Your task to perform on an android device: change the clock style Image 0: 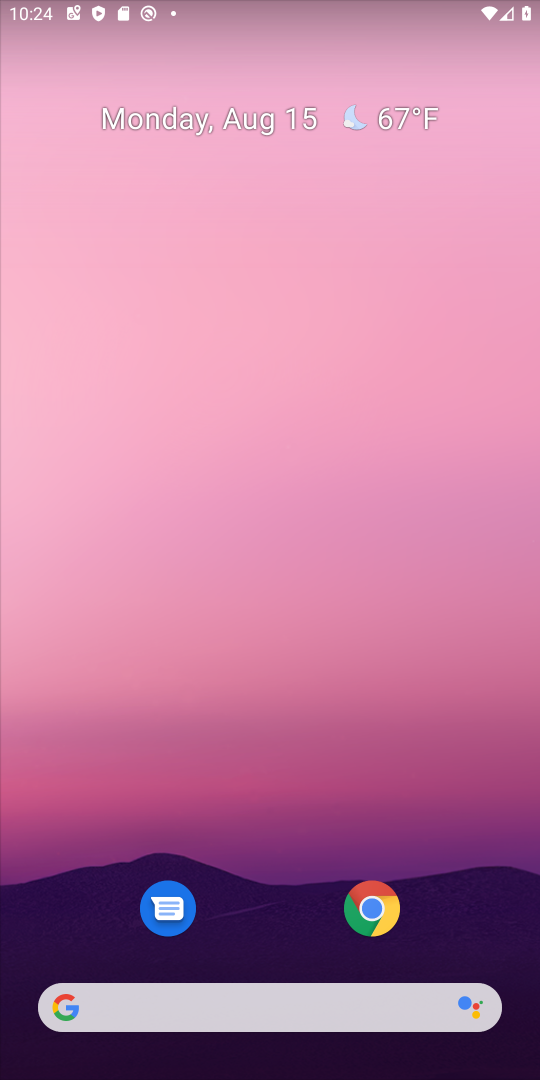
Step 0: drag from (249, 916) to (270, 426)
Your task to perform on an android device: change the clock style Image 1: 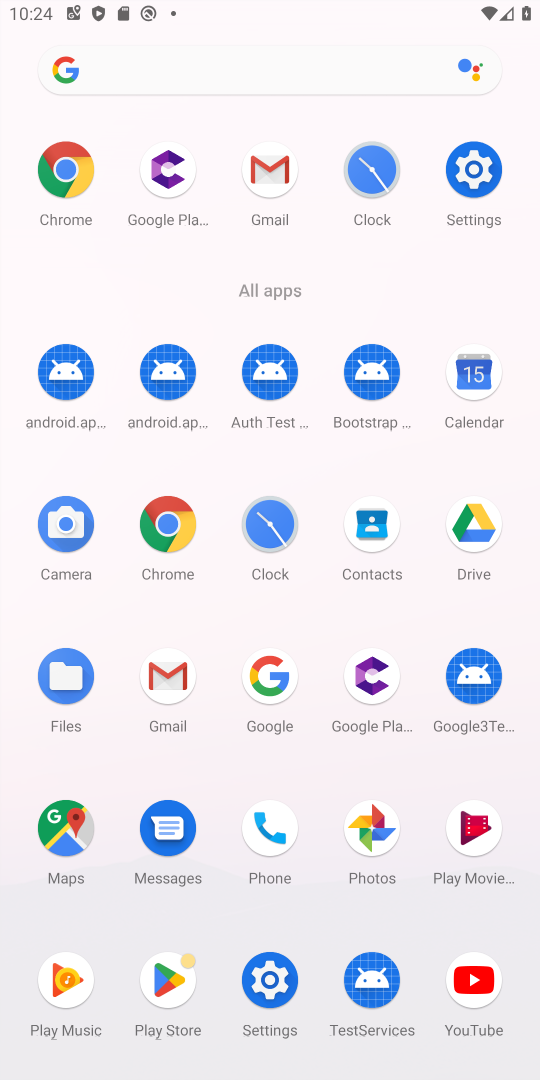
Step 1: click (372, 189)
Your task to perform on an android device: change the clock style Image 2: 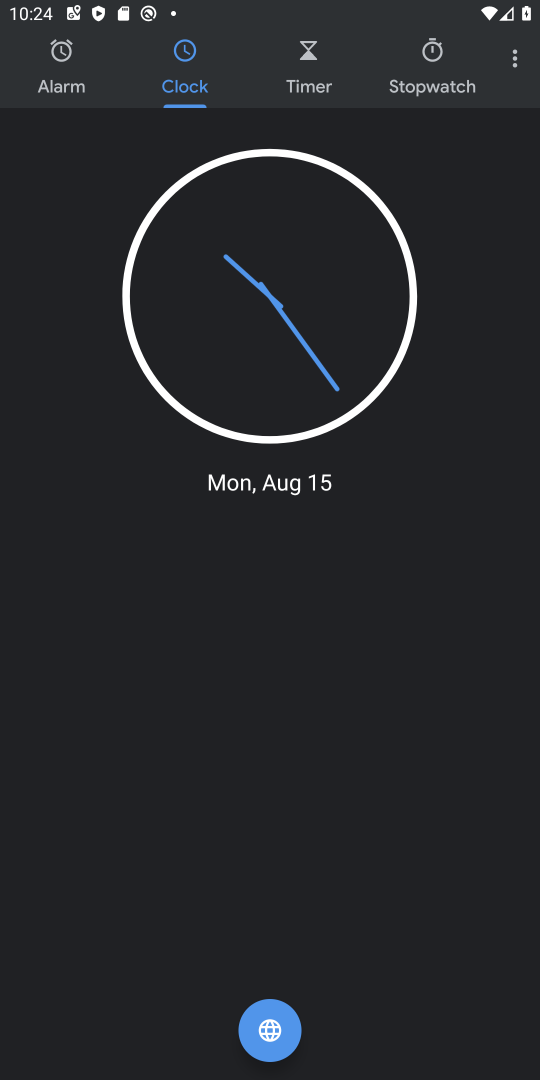
Step 2: click (529, 70)
Your task to perform on an android device: change the clock style Image 3: 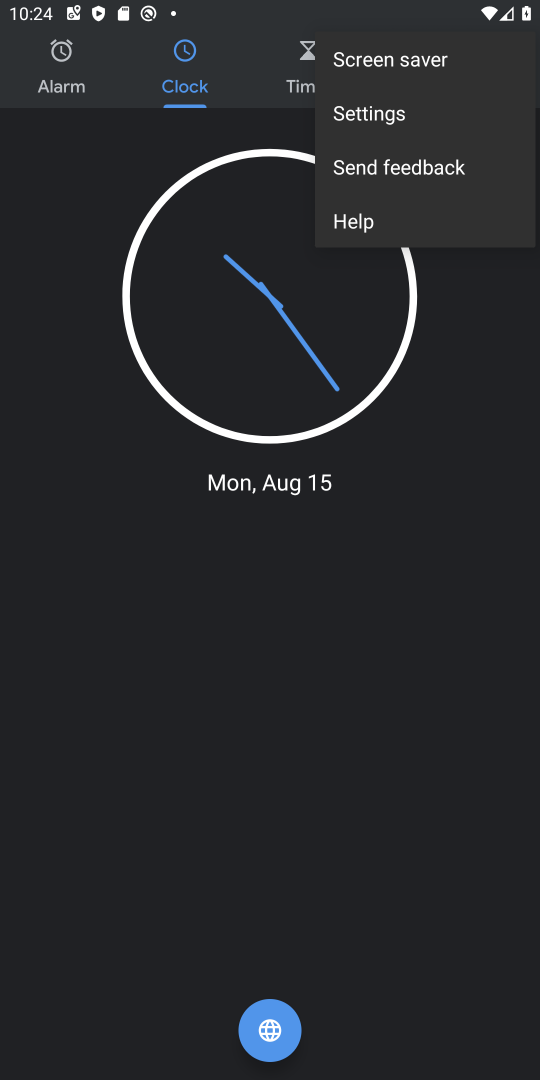
Step 3: click (395, 119)
Your task to perform on an android device: change the clock style Image 4: 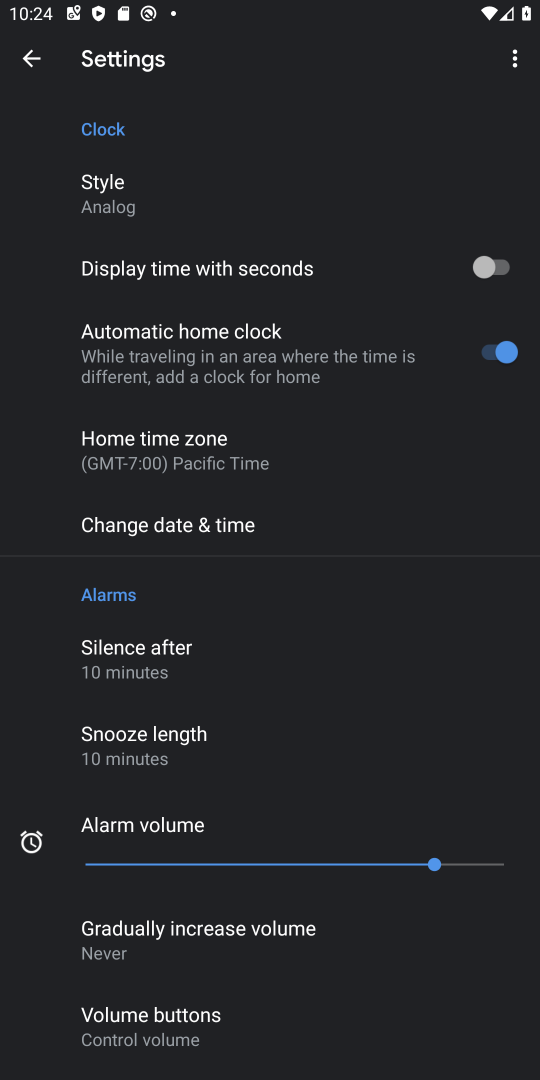
Step 4: click (123, 184)
Your task to perform on an android device: change the clock style Image 5: 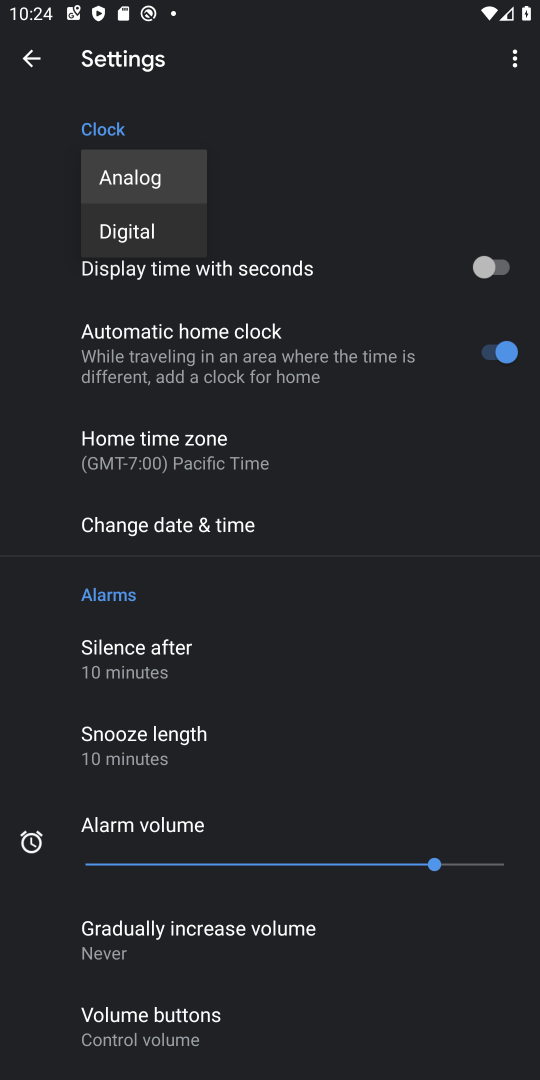
Step 5: click (157, 234)
Your task to perform on an android device: change the clock style Image 6: 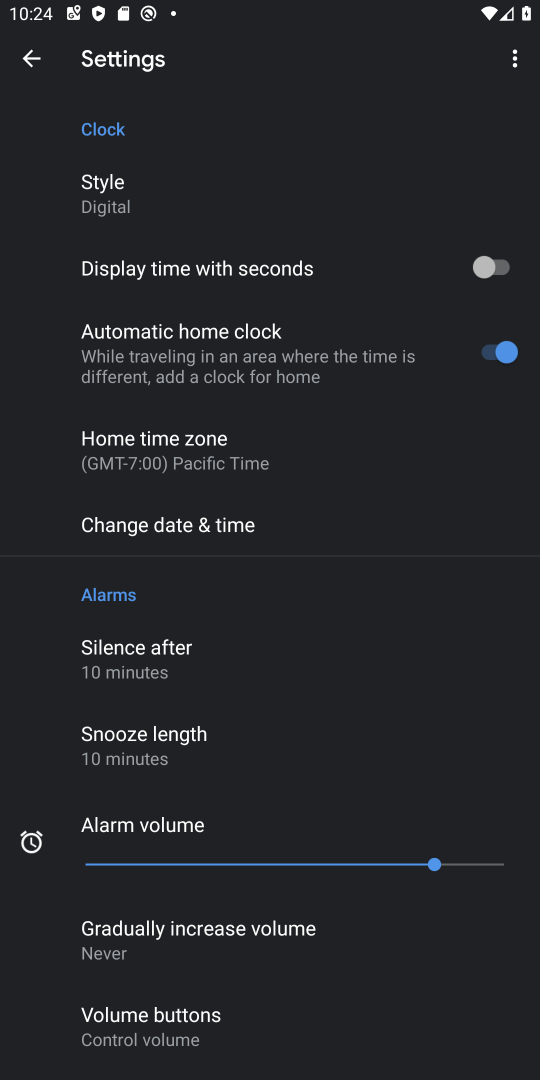
Step 6: task complete